Your task to perform on an android device: turn off location Image 0: 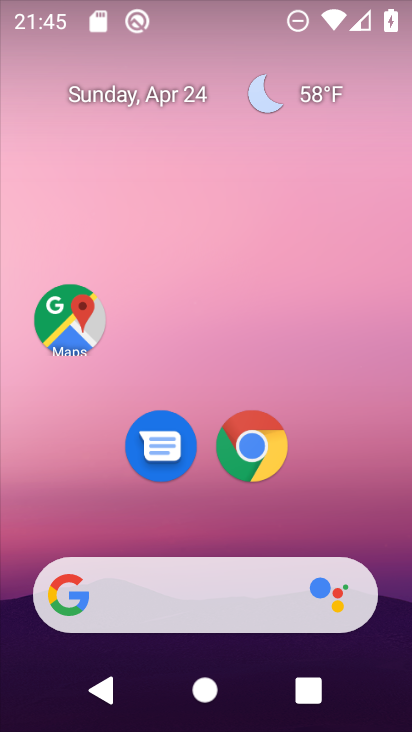
Step 0: drag from (166, 599) to (302, 134)
Your task to perform on an android device: turn off location Image 1: 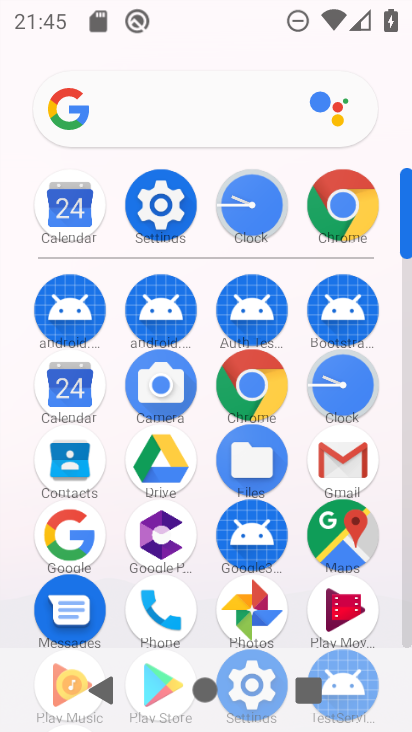
Step 1: click (161, 221)
Your task to perform on an android device: turn off location Image 2: 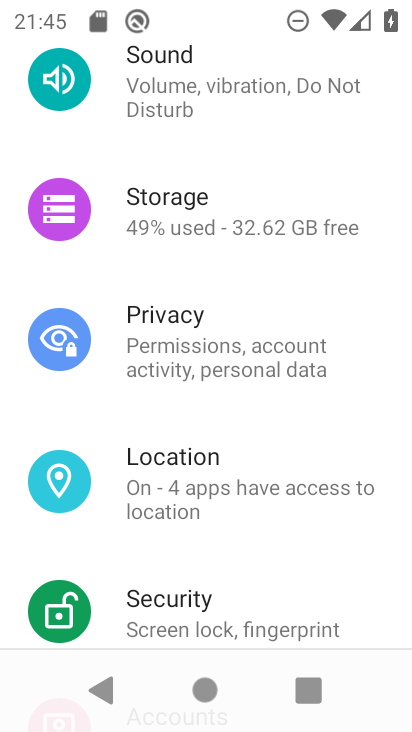
Step 2: drag from (187, 557) to (340, 87)
Your task to perform on an android device: turn off location Image 3: 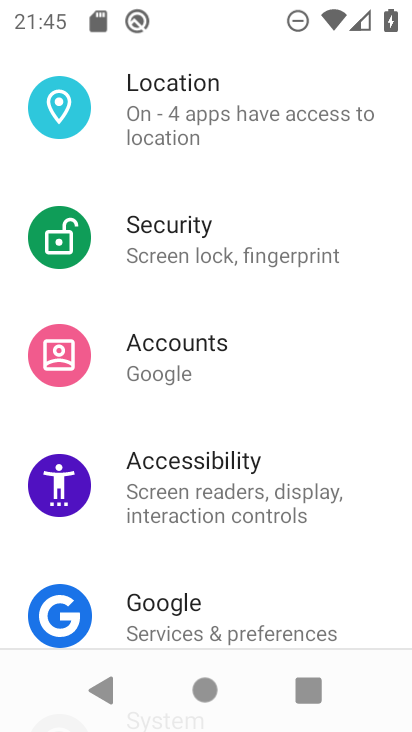
Step 3: drag from (217, 555) to (267, 162)
Your task to perform on an android device: turn off location Image 4: 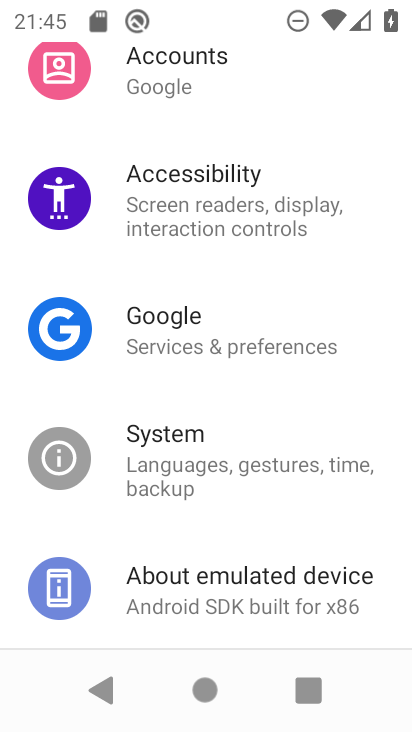
Step 4: drag from (247, 132) to (271, 598)
Your task to perform on an android device: turn off location Image 5: 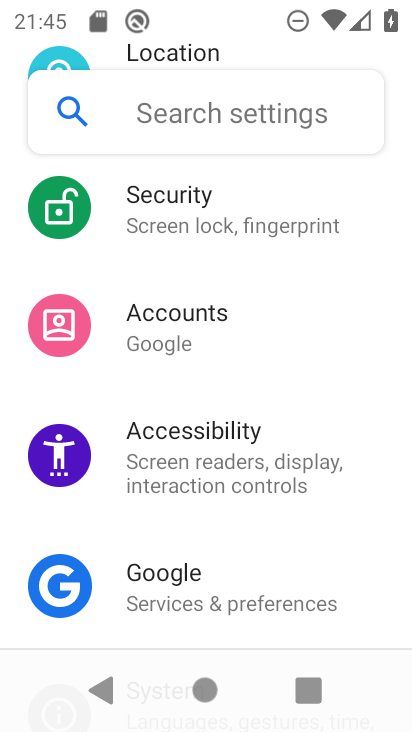
Step 5: drag from (297, 294) to (290, 720)
Your task to perform on an android device: turn off location Image 6: 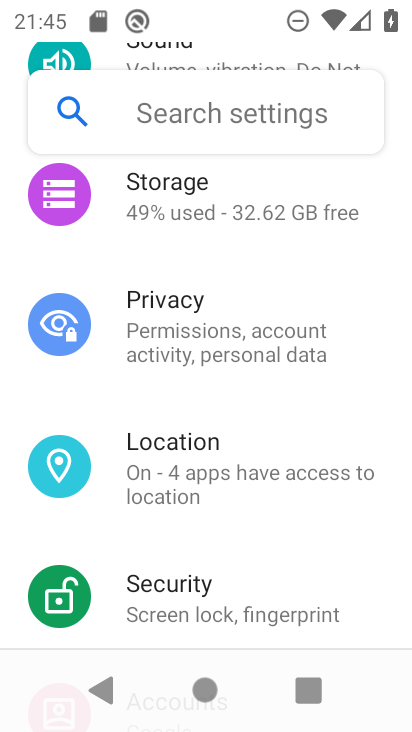
Step 6: click (183, 469)
Your task to perform on an android device: turn off location Image 7: 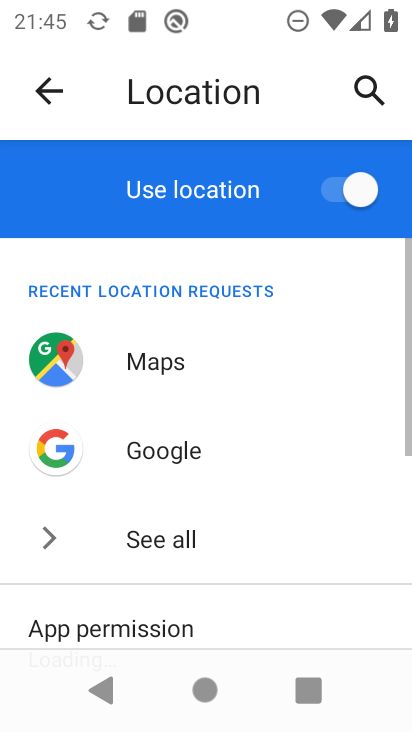
Step 7: click (343, 189)
Your task to perform on an android device: turn off location Image 8: 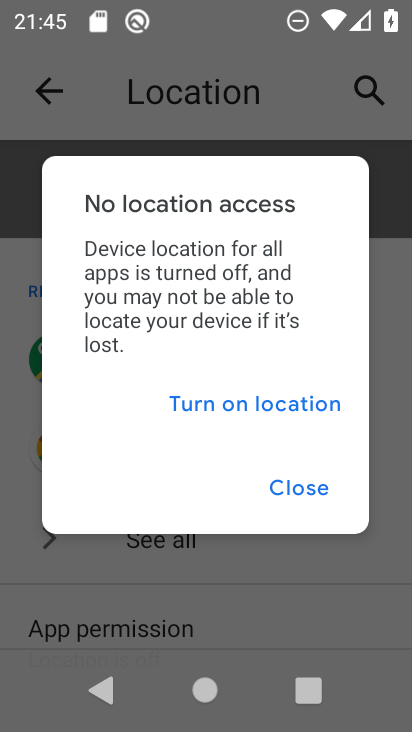
Step 8: click (300, 488)
Your task to perform on an android device: turn off location Image 9: 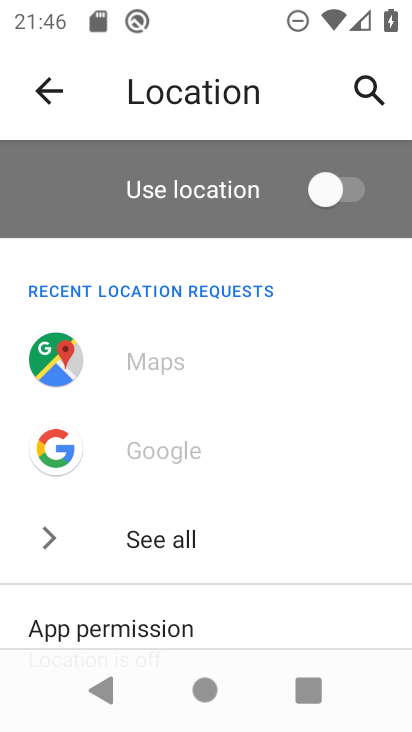
Step 9: task complete